Your task to perform on an android device: see tabs open on other devices in the chrome app Image 0: 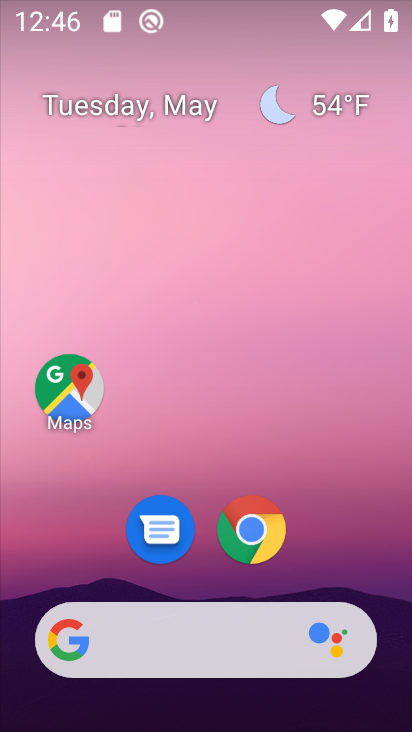
Step 0: drag from (316, 513) to (265, 246)
Your task to perform on an android device: see tabs open on other devices in the chrome app Image 1: 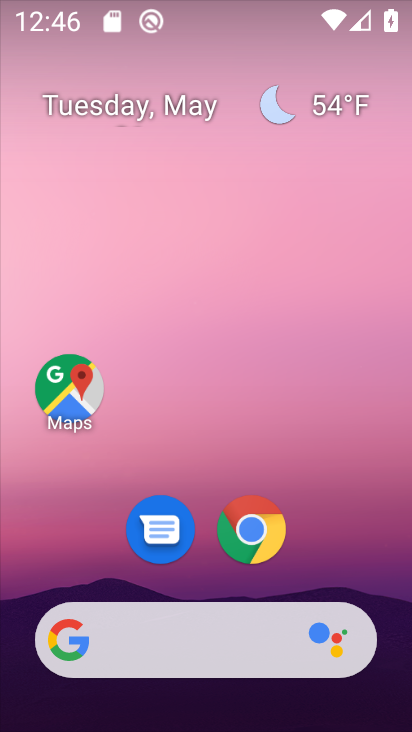
Step 1: click (239, 520)
Your task to perform on an android device: see tabs open on other devices in the chrome app Image 2: 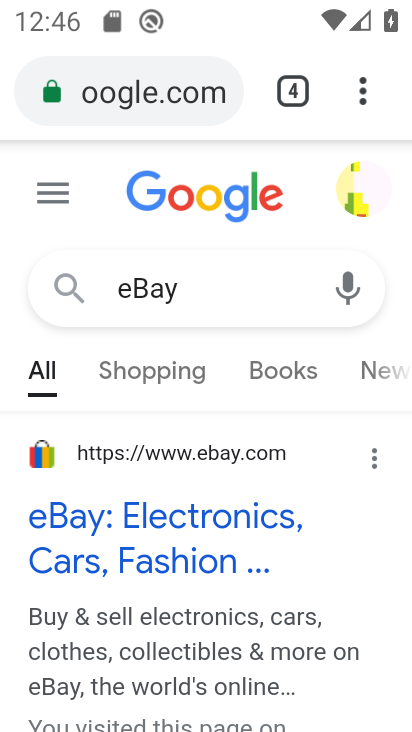
Step 2: click (360, 89)
Your task to perform on an android device: see tabs open on other devices in the chrome app Image 3: 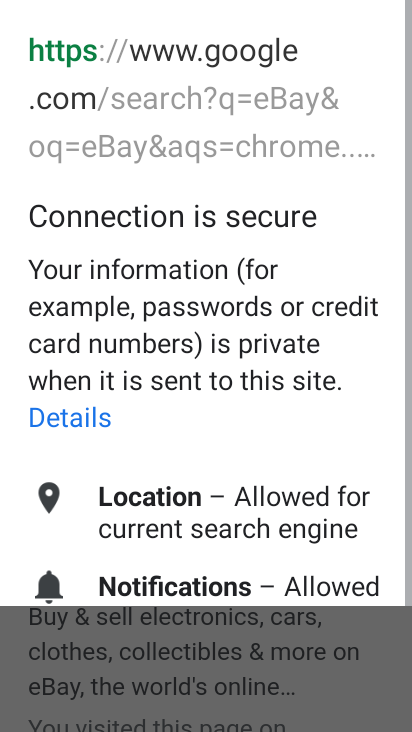
Step 3: click (361, 89)
Your task to perform on an android device: see tabs open on other devices in the chrome app Image 4: 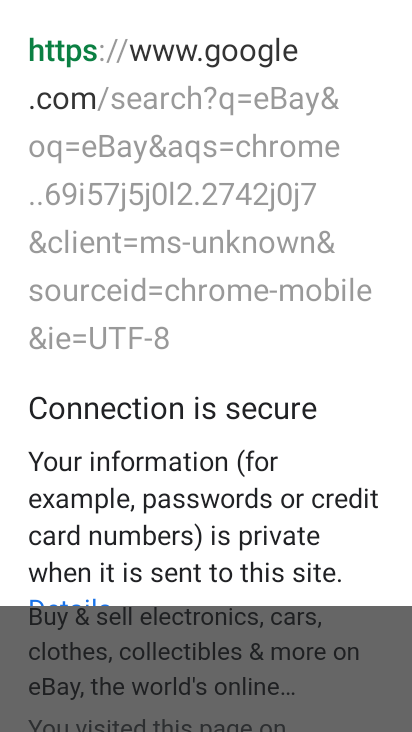
Step 4: press back button
Your task to perform on an android device: see tabs open on other devices in the chrome app Image 5: 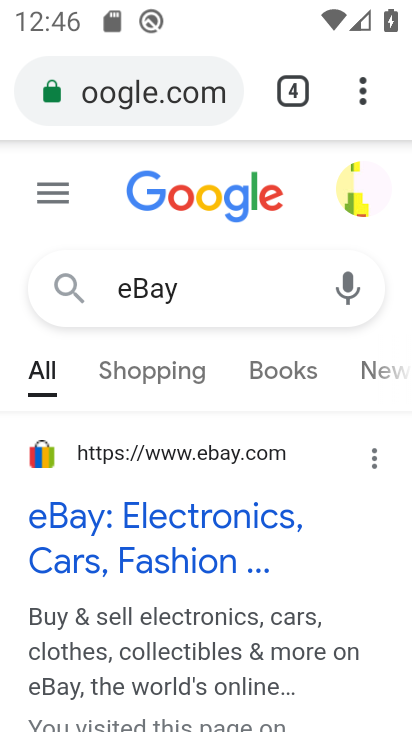
Step 5: click (377, 83)
Your task to perform on an android device: see tabs open on other devices in the chrome app Image 6: 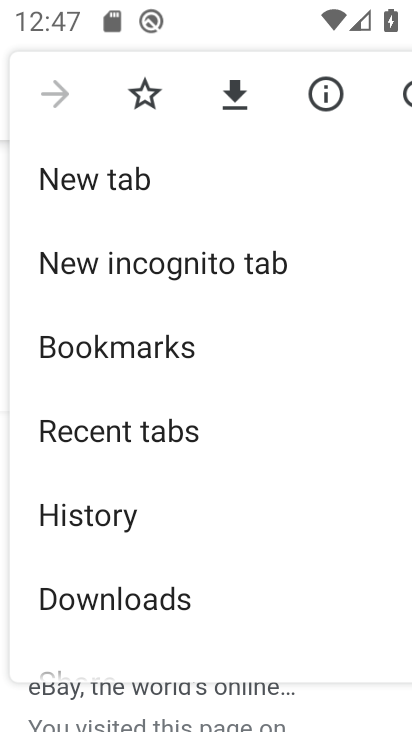
Step 6: click (122, 174)
Your task to perform on an android device: see tabs open on other devices in the chrome app Image 7: 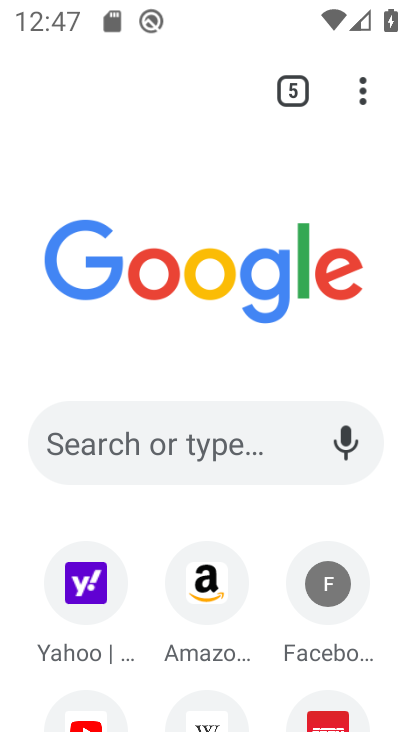
Step 7: task complete